Your task to perform on an android device: make emails show in primary in the gmail app Image 0: 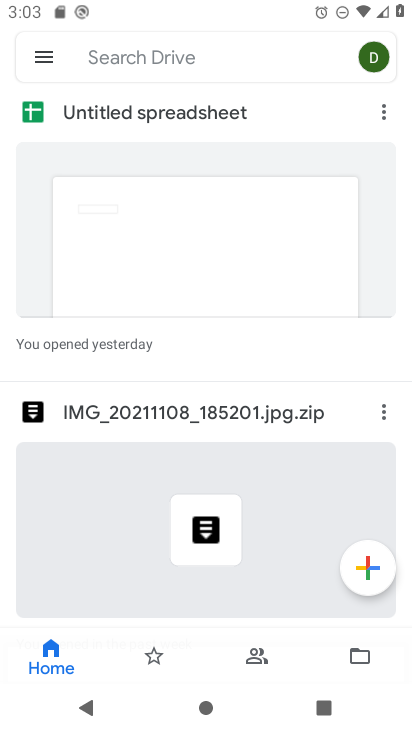
Step 0: press home button
Your task to perform on an android device: make emails show in primary in the gmail app Image 1: 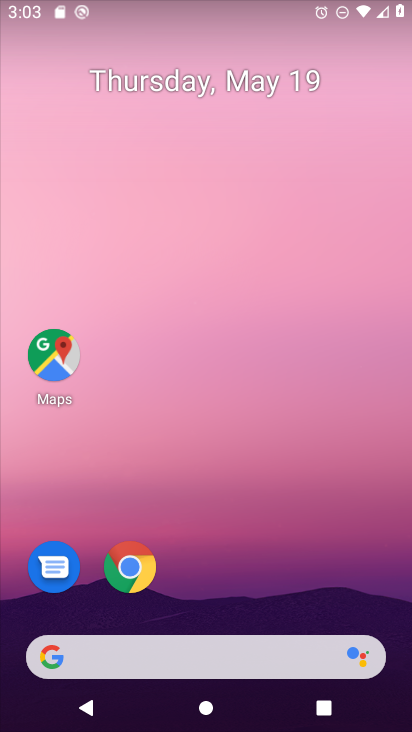
Step 1: drag from (224, 559) to (232, 146)
Your task to perform on an android device: make emails show in primary in the gmail app Image 2: 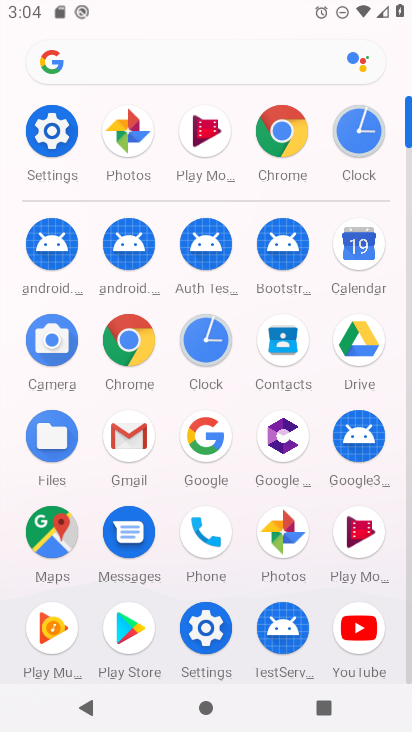
Step 2: click (133, 434)
Your task to perform on an android device: make emails show in primary in the gmail app Image 3: 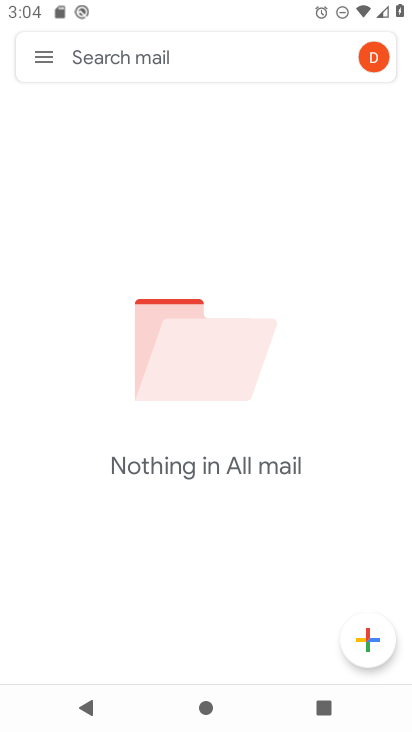
Step 3: click (42, 52)
Your task to perform on an android device: make emails show in primary in the gmail app Image 4: 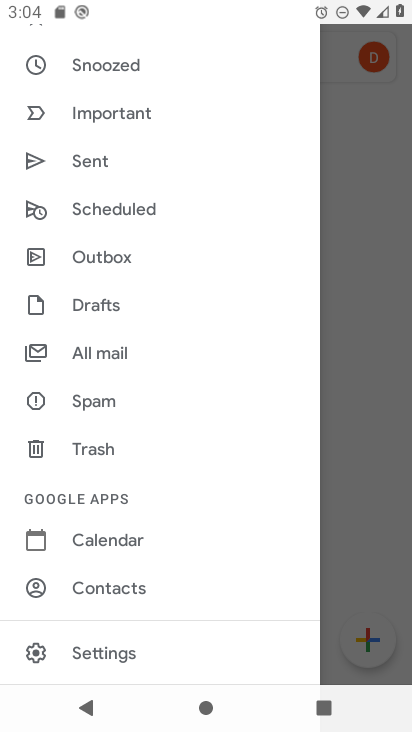
Step 4: click (104, 653)
Your task to perform on an android device: make emails show in primary in the gmail app Image 5: 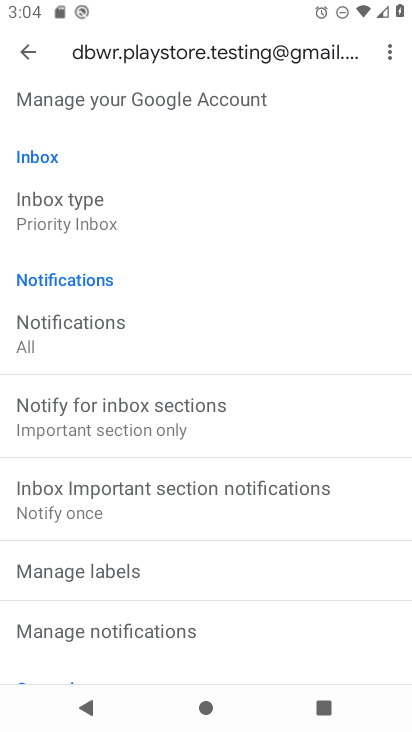
Step 5: click (97, 208)
Your task to perform on an android device: make emails show in primary in the gmail app Image 6: 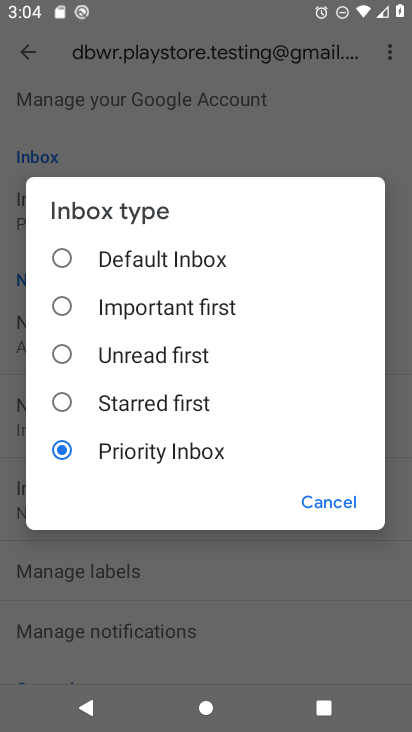
Step 6: click (61, 256)
Your task to perform on an android device: make emails show in primary in the gmail app Image 7: 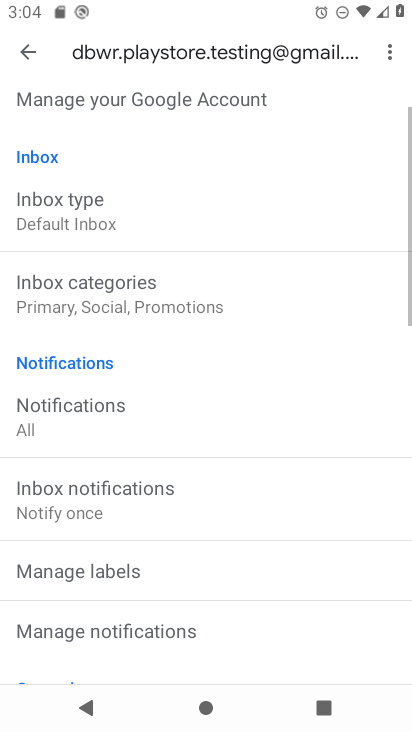
Step 7: click (63, 283)
Your task to perform on an android device: make emails show in primary in the gmail app Image 8: 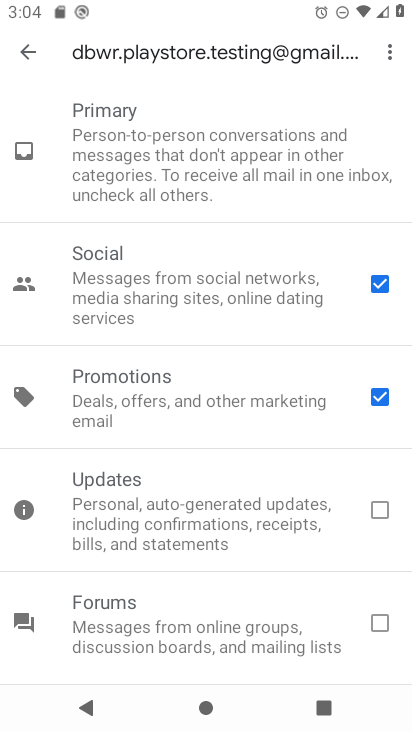
Step 8: click (378, 286)
Your task to perform on an android device: make emails show in primary in the gmail app Image 9: 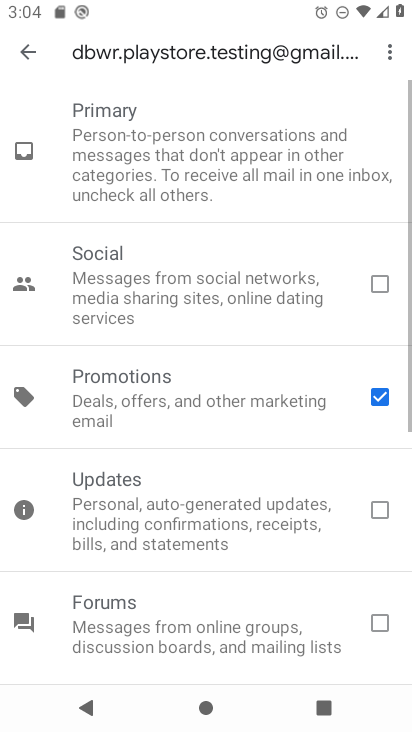
Step 9: click (380, 390)
Your task to perform on an android device: make emails show in primary in the gmail app Image 10: 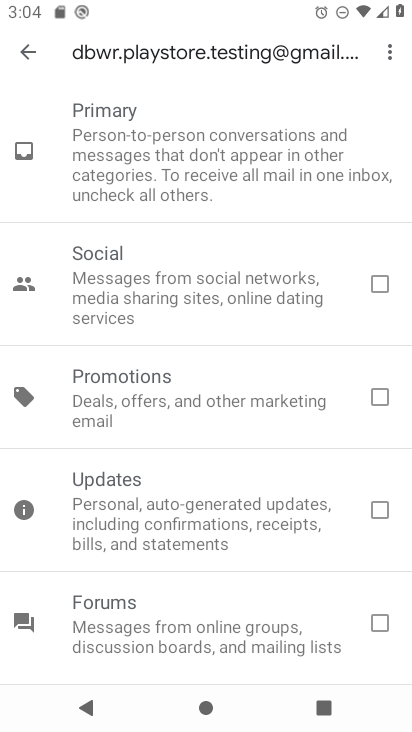
Step 10: task complete